Your task to perform on an android device: see sites visited before in the chrome app Image 0: 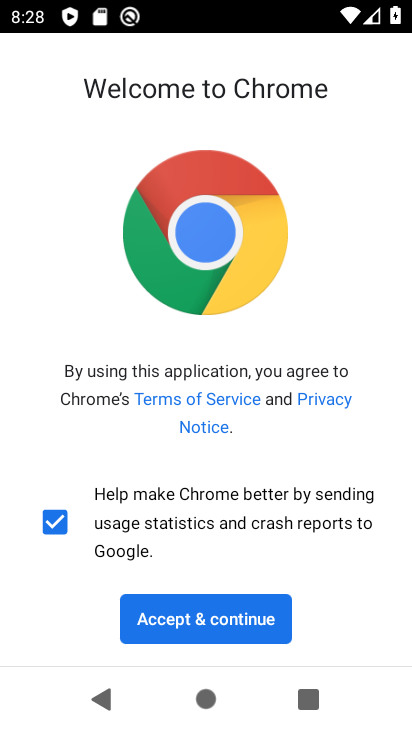
Step 0: click (225, 624)
Your task to perform on an android device: see sites visited before in the chrome app Image 1: 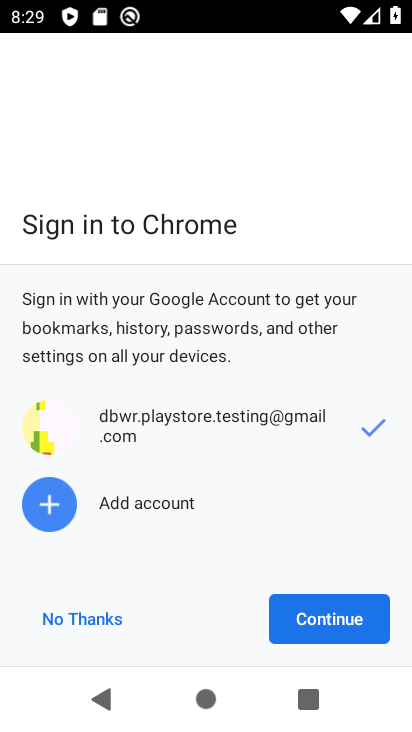
Step 1: click (323, 609)
Your task to perform on an android device: see sites visited before in the chrome app Image 2: 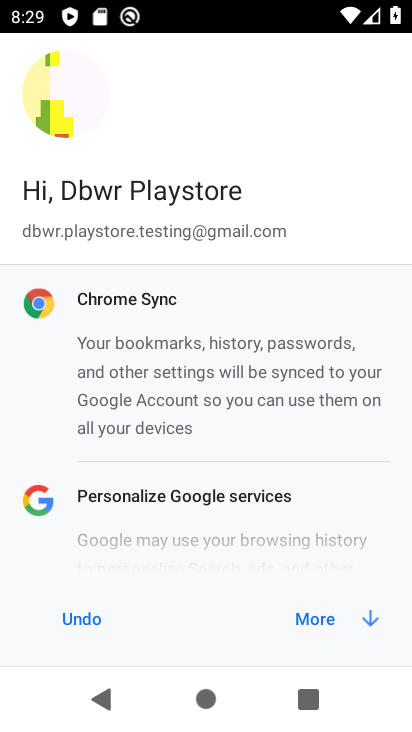
Step 2: click (329, 612)
Your task to perform on an android device: see sites visited before in the chrome app Image 3: 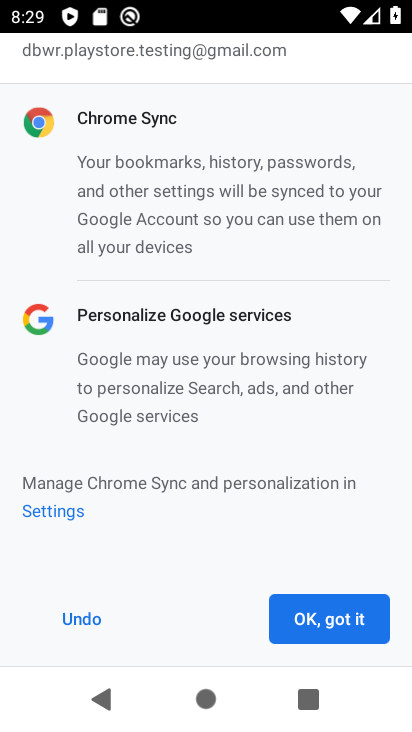
Step 3: click (331, 622)
Your task to perform on an android device: see sites visited before in the chrome app Image 4: 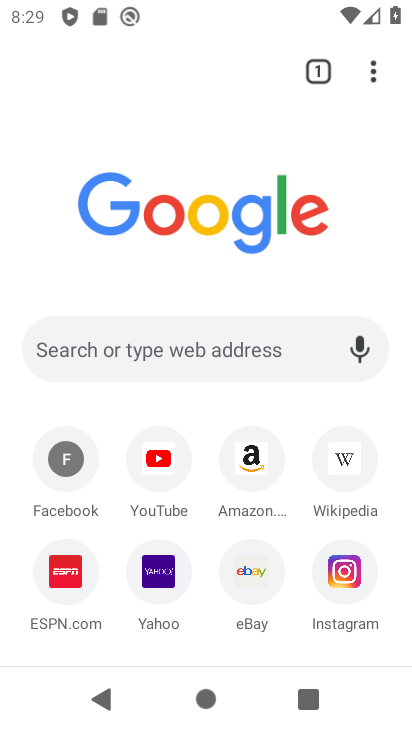
Step 4: click (376, 70)
Your task to perform on an android device: see sites visited before in the chrome app Image 5: 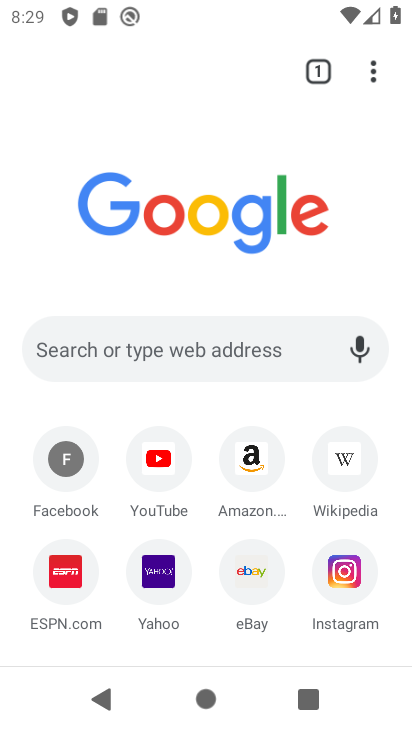
Step 5: click (376, 70)
Your task to perform on an android device: see sites visited before in the chrome app Image 6: 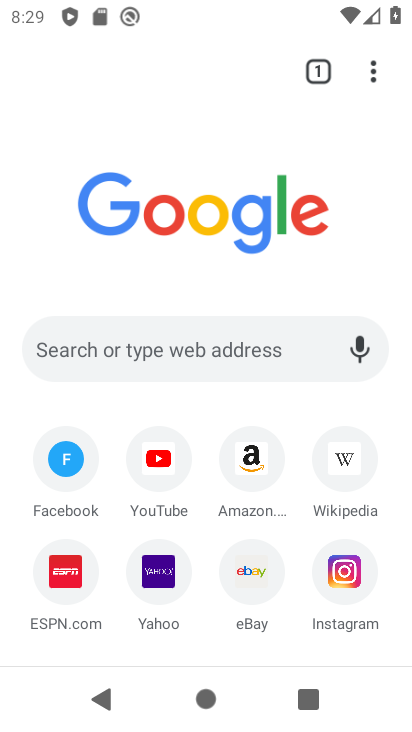
Step 6: click (376, 70)
Your task to perform on an android device: see sites visited before in the chrome app Image 7: 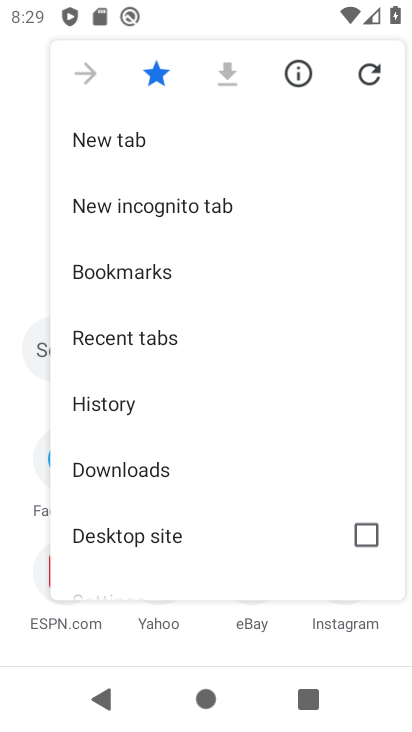
Step 7: drag from (148, 453) to (150, 232)
Your task to perform on an android device: see sites visited before in the chrome app Image 8: 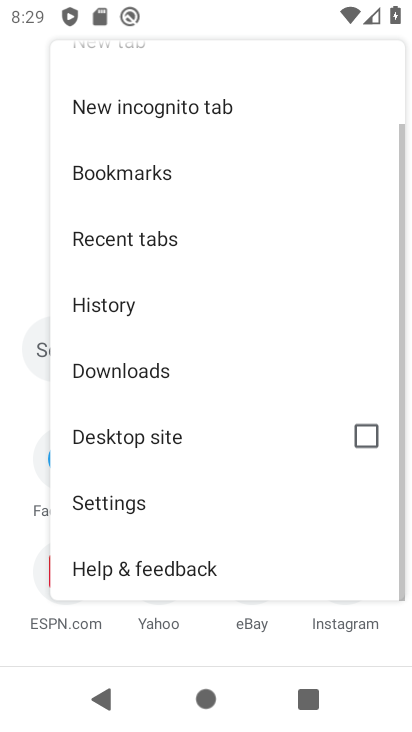
Step 8: click (101, 497)
Your task to perform on an android device: see sites visited before in the chrome app Image 9: 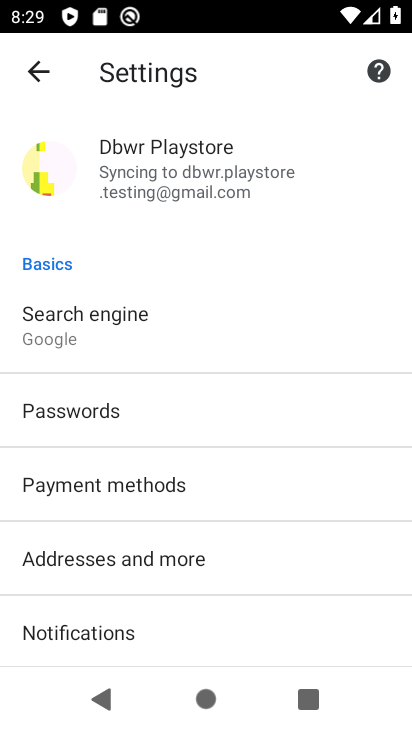
Step 9: drag from (88, 642) to (116, 310)
Your task to perform on an android device: see sites visited before in the chrome app Image 10: 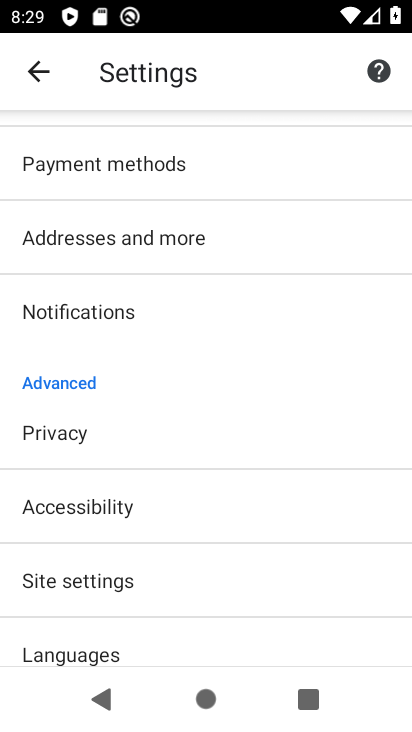
Step 10: click (85, 575)
Your task to perform on an android device: see sites visited before in the chrome app Image 11: 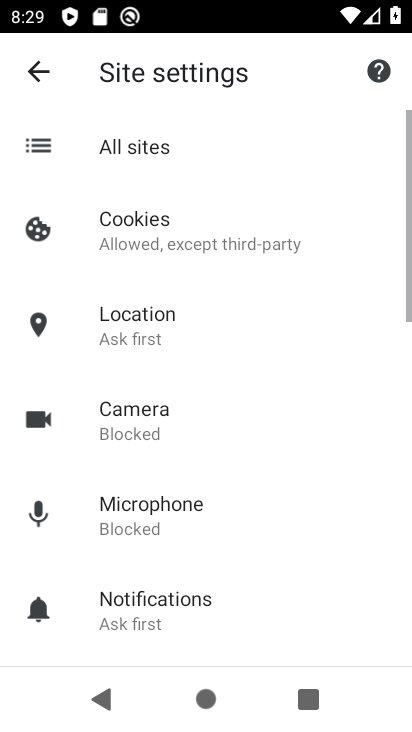
Step 11: task complete